Your task to perform on an android device: turn on data saver in the chrome app Image 0: 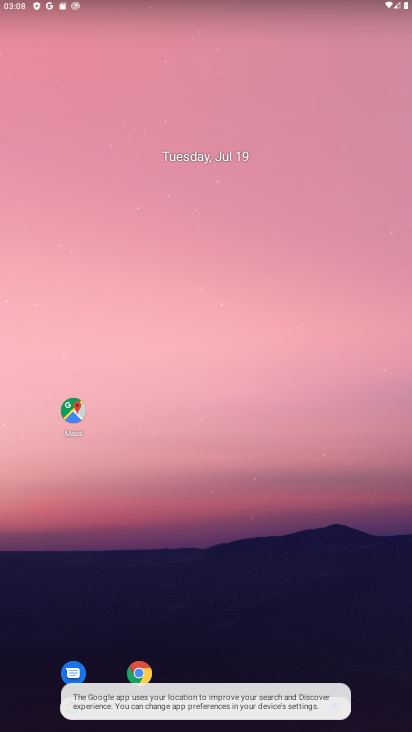
Step 0: press home button
Your task to perform on an android device: turn on data saver in the chrome app Image 1: 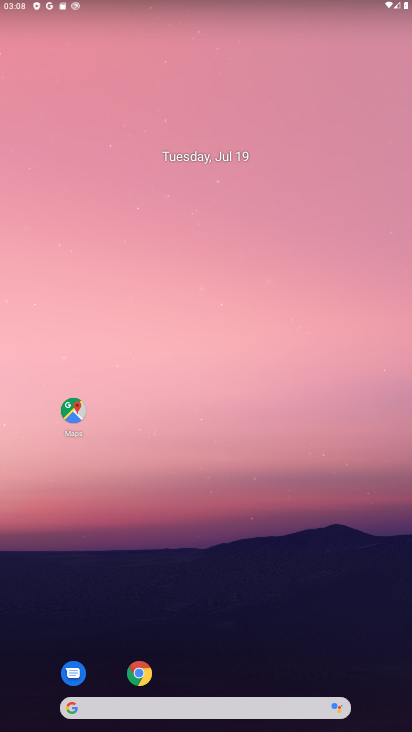
Step 1: click (145, 666)
Your task to perform on an android device: turn on data saver in the chrome app Image 2: 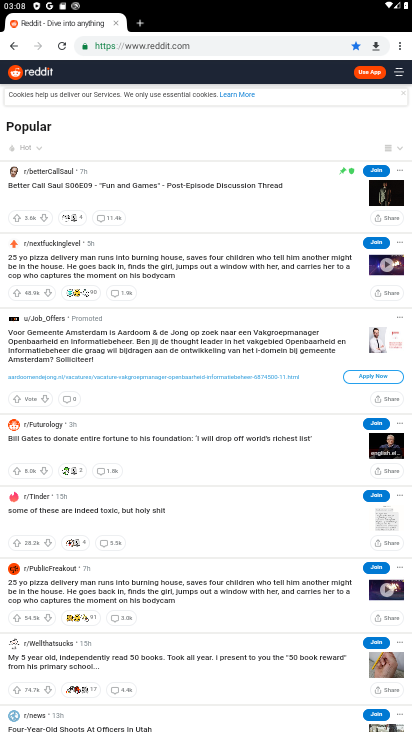
Step 2: click (400, 42)
Your task to perform on an android device: turn on data saver in the chrome app Image 3: 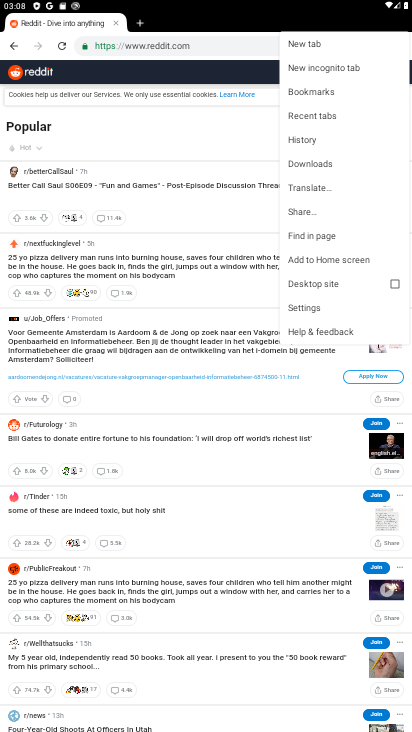
Step 3: click (321, 307)
Your task to perform on an android device: turn on data saver in the chrome app Image 4: 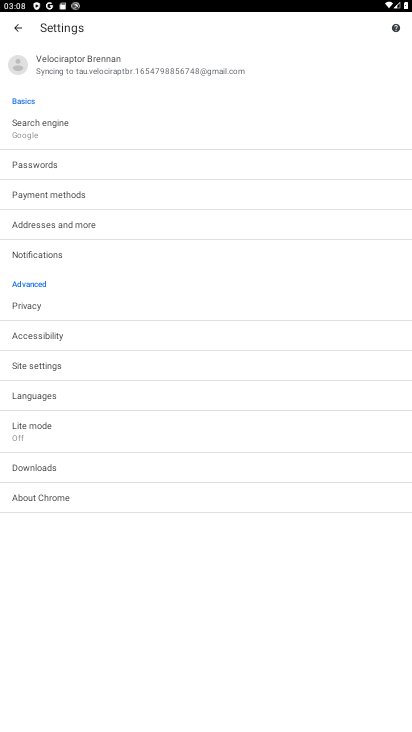
Step 4: click (76, 433)
Your task to perform on an android device: turn on data saver in the chrome app Image 5: 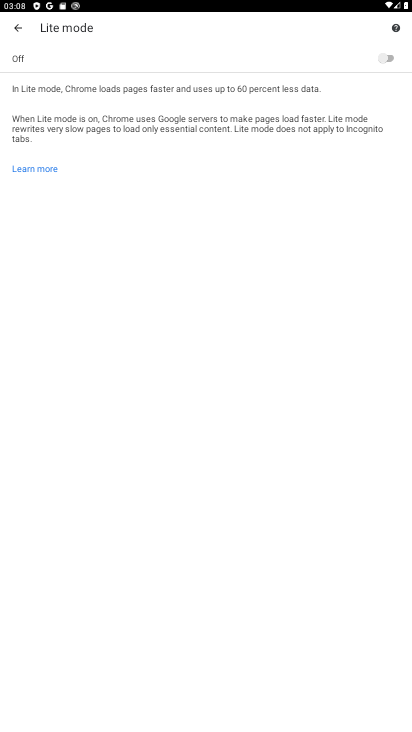
Step 5: click (387, 60)
Your task to perform on an android device: turn on data saver in the chrome app Image 6: 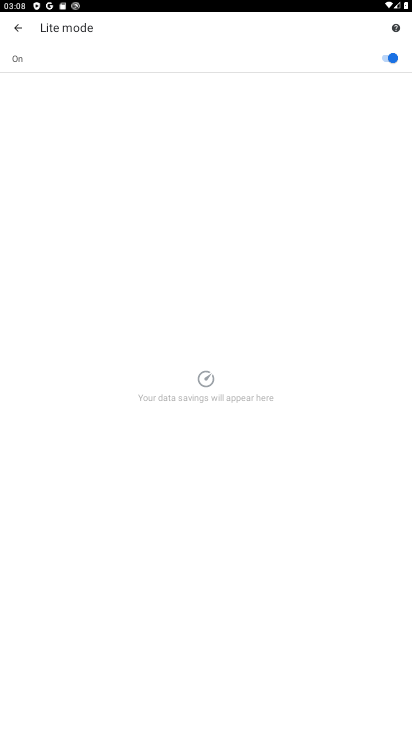
Step 6: task complete